Your task to perform on an android device: change your default location settings in chrome Image 0: 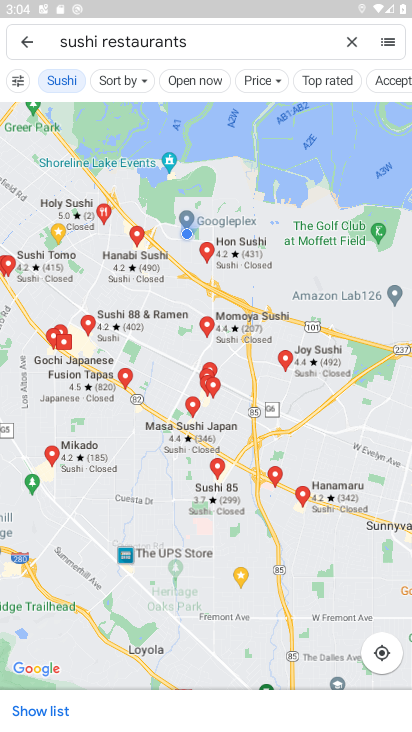
Step 0: press home button
Your task to perform on an android device: change your default location settings in chrome Image 1: 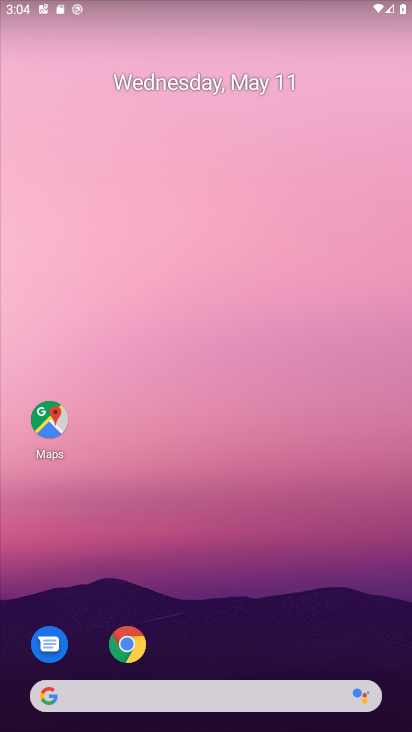
Step 1: drag from (167, 668) to (147, 11)
Your task to perform on an android device: change your default location settings in chrome Image 2: 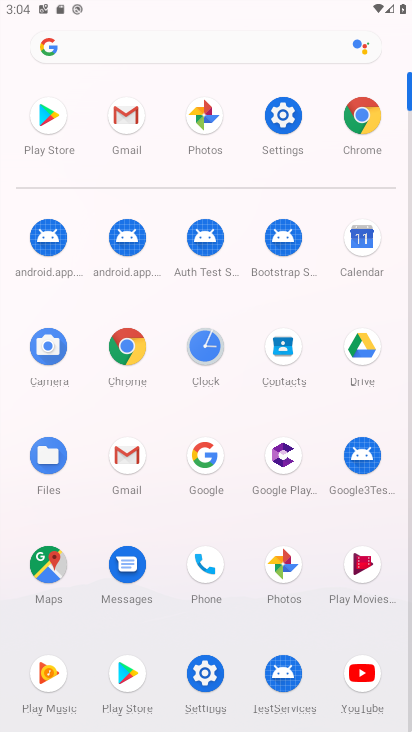
Step 2: click (132, 346)
Your task to perform on an android device: change your default location settings in chrome Image 3: 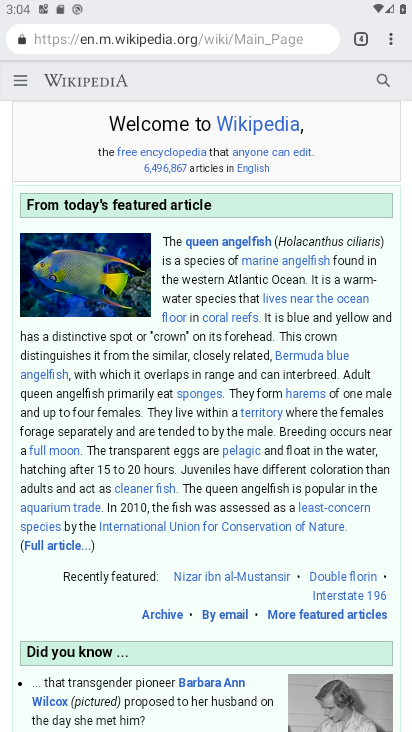
Step 3: click (383, 35)
Your task to perform on an android device: change your default location settings in chrome Image 4: 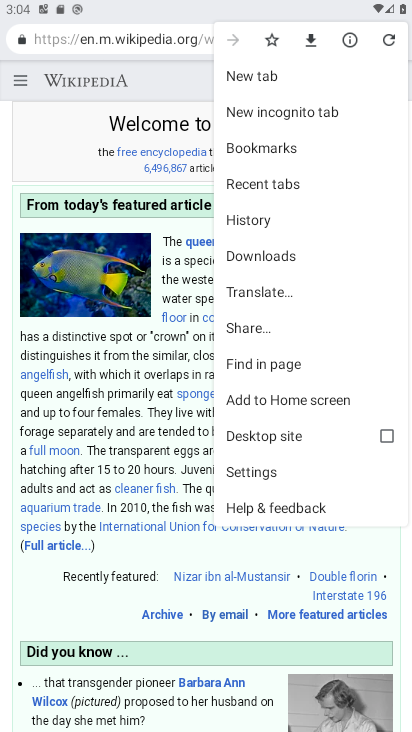
Step 4: click (247, 467)
Your task to perform on an android device: change your default location settings in chrome Image 5: 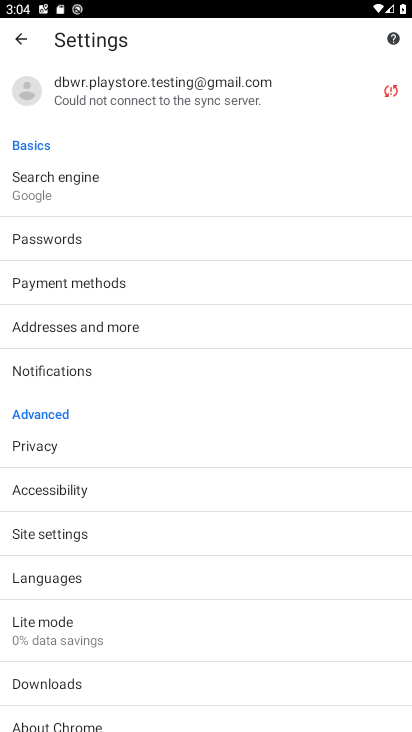
Step 5: click (52, 540)
Your task to perform on an android device: change your default location settings in chrome Image 6: 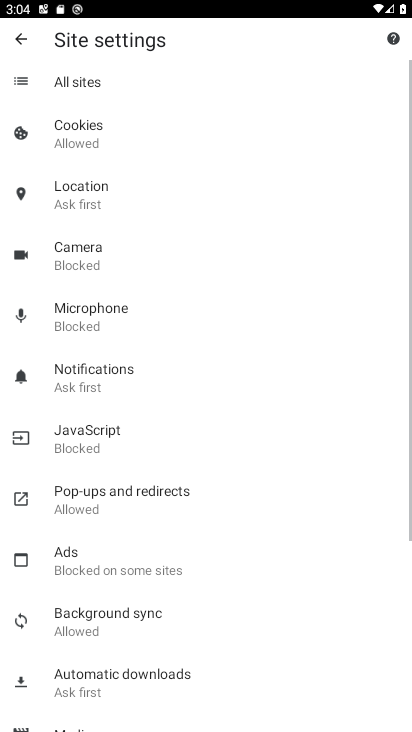
Step 6: click (83, 204)
Your task to perform on an android device: change your default location settings in chrome Image 7: 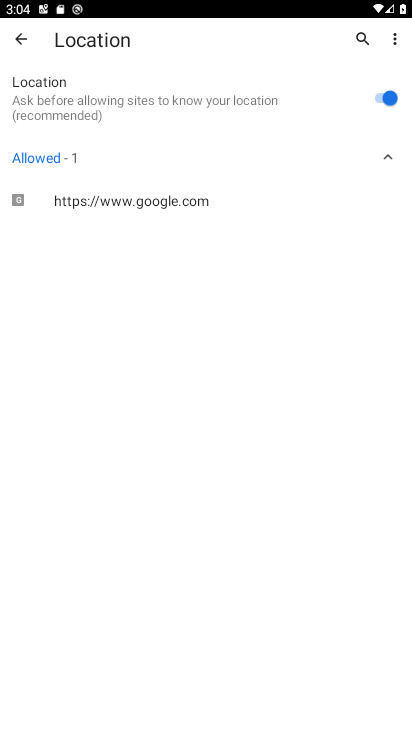
Step 7: click (382, 97)
Your task to perform on an android device: change your default location settings in chrome Image 8: 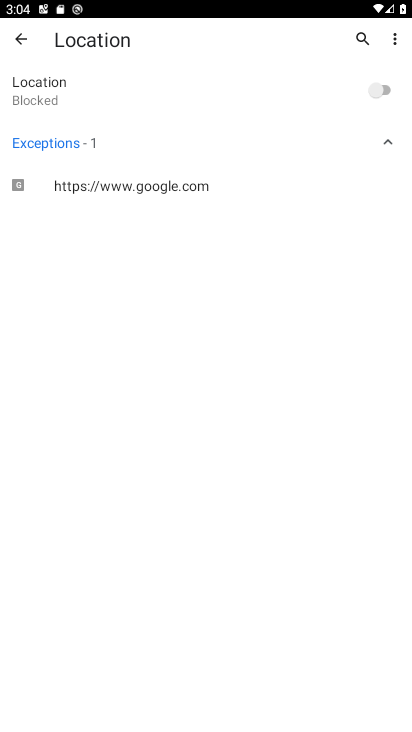
Step 8: task complete